Your task to perform on an android device: Open Maps and search for coffee Image 0: 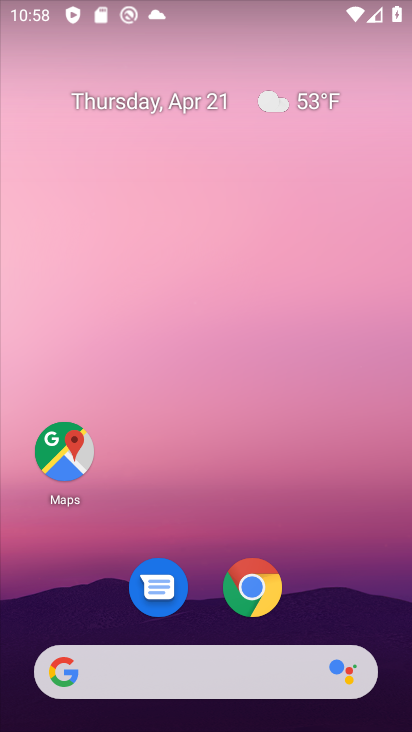
Step 0: click (59, 452)
Your task to perform on an android device: Open Maps and search for coffee Image 1: 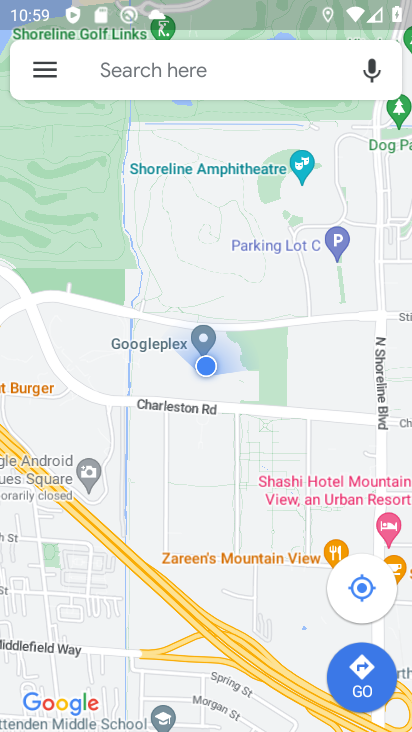
Step 1: click (163, 75)
Your task to perform on an android device: Open Maps and search for coffee Image 2: 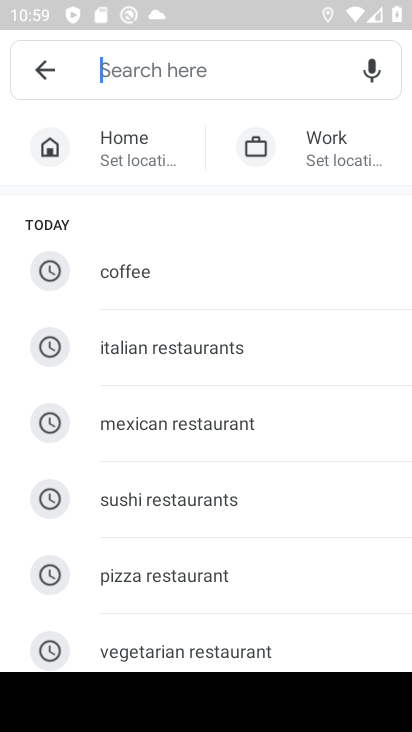
Step 2: click (116, 280)
Your task to perform on an android device: Open Maps and search for coffee Image 3: 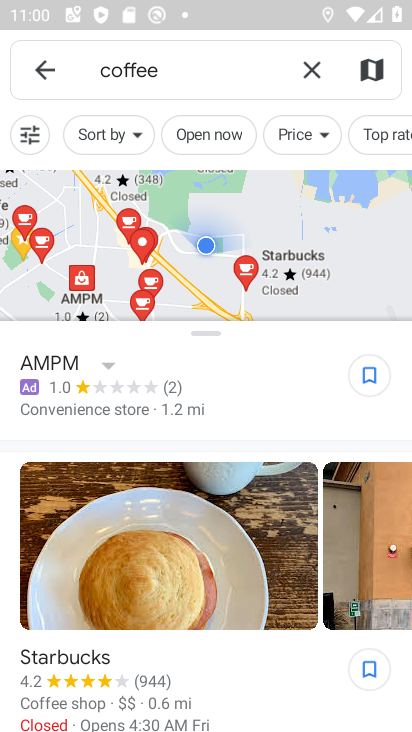
Step 3: task complete